Your task to perform on an android device: Open calendar and show me the third week of next month Image 0: 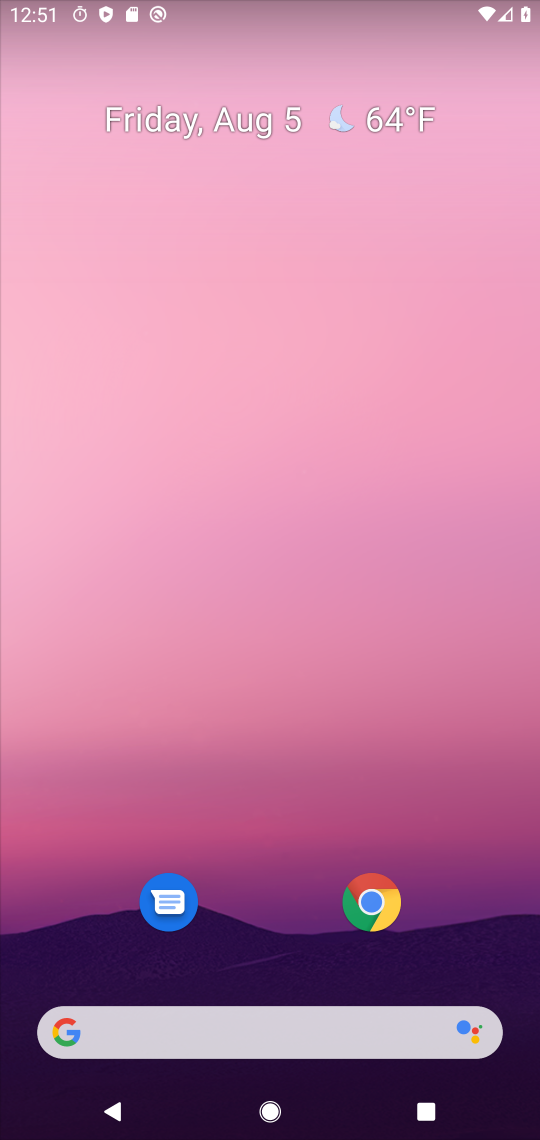
Step 0: press home button
Your task to perform on an android device: Open calendar and show me the third week of next month Image 1: 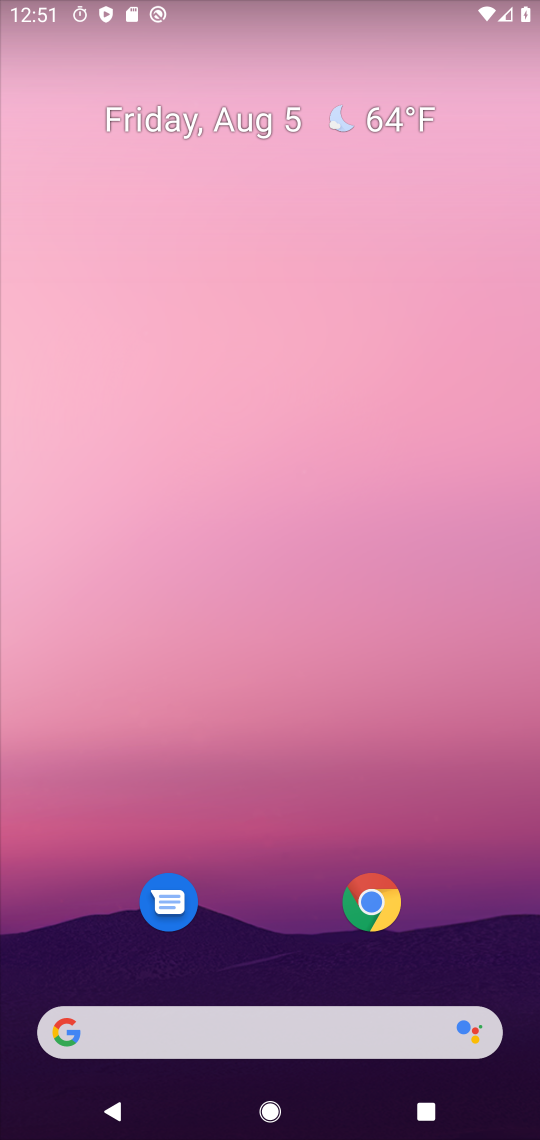
Step 1: drag from (268, 1015) to (6, 317)
Your task to perform on an android device: Open calendar and show me the third week of next month Image 2: 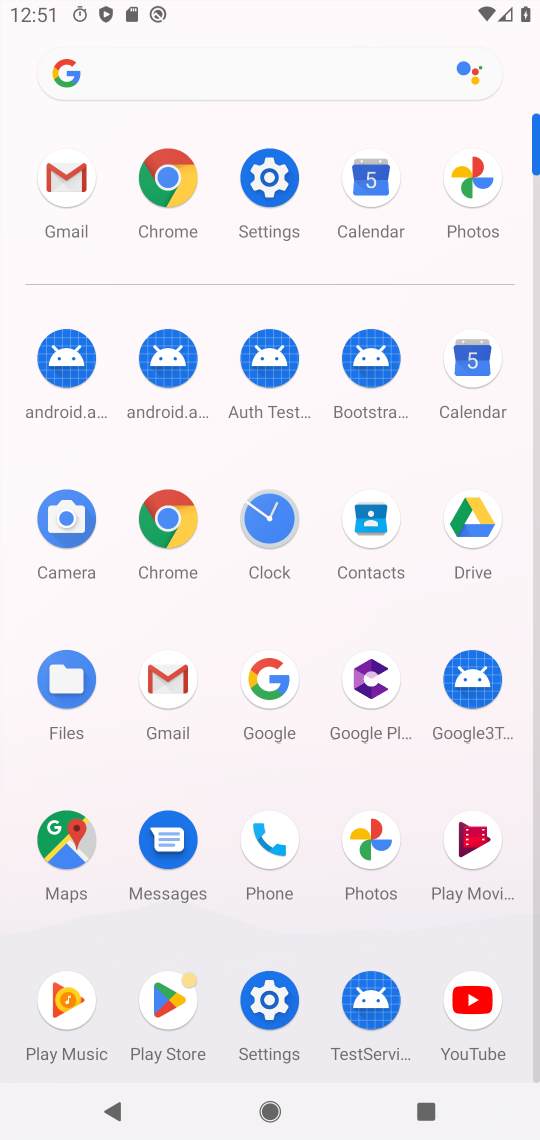
Step 2: click (452, 379)
Your task to perform on an android device: Open calendar and show me the third week of next month Image 3: 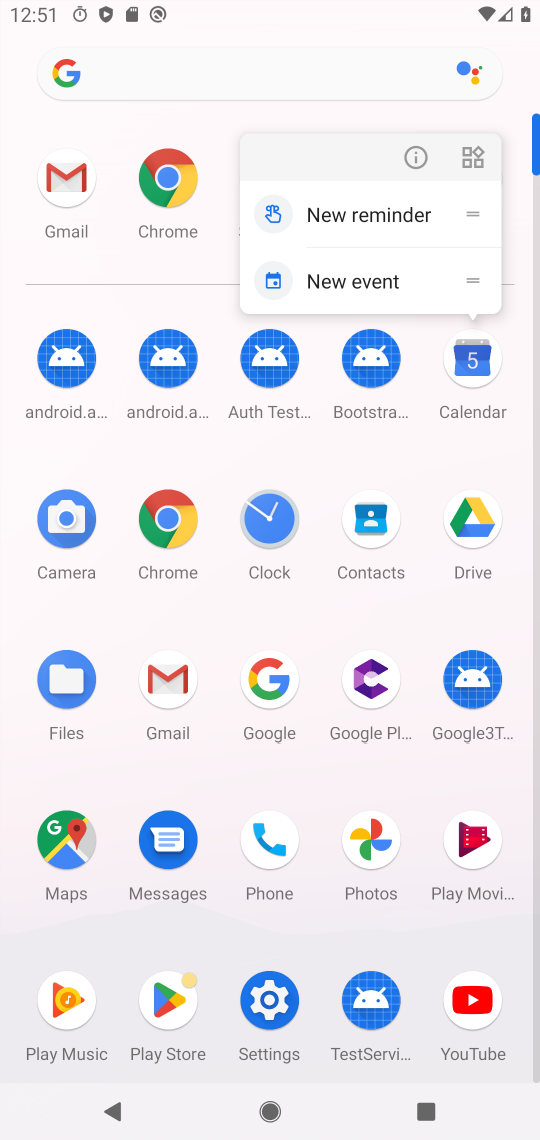
Step 3: click (475, 377)
Your task to perform on an android device: Open calendar and show me the third week of next month Image 4: 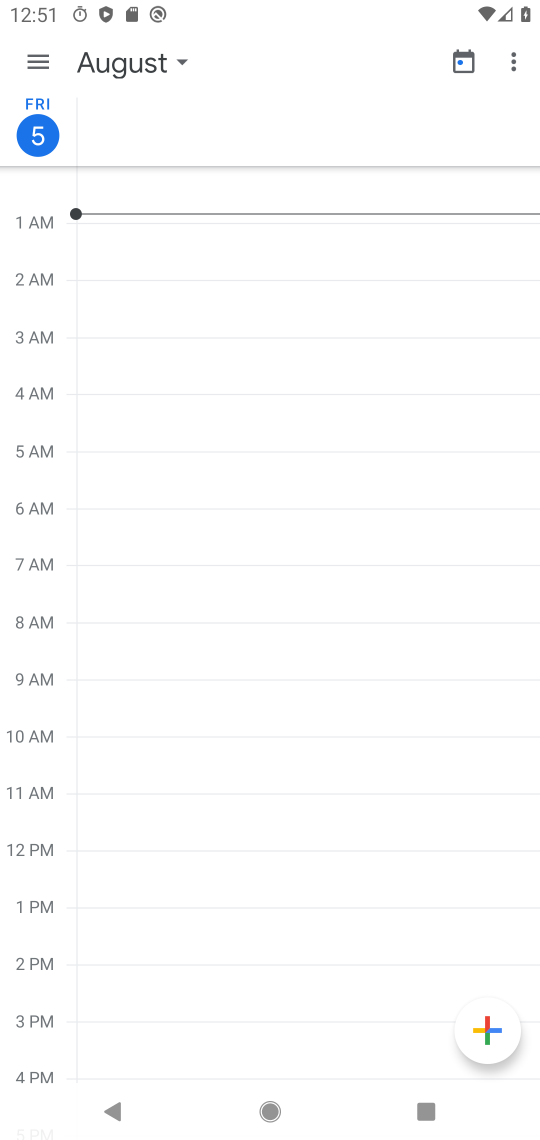
Step 4: click (31, 63)
Your task to perform on an android device: Open calendar and show me the third week of next month Image 5: 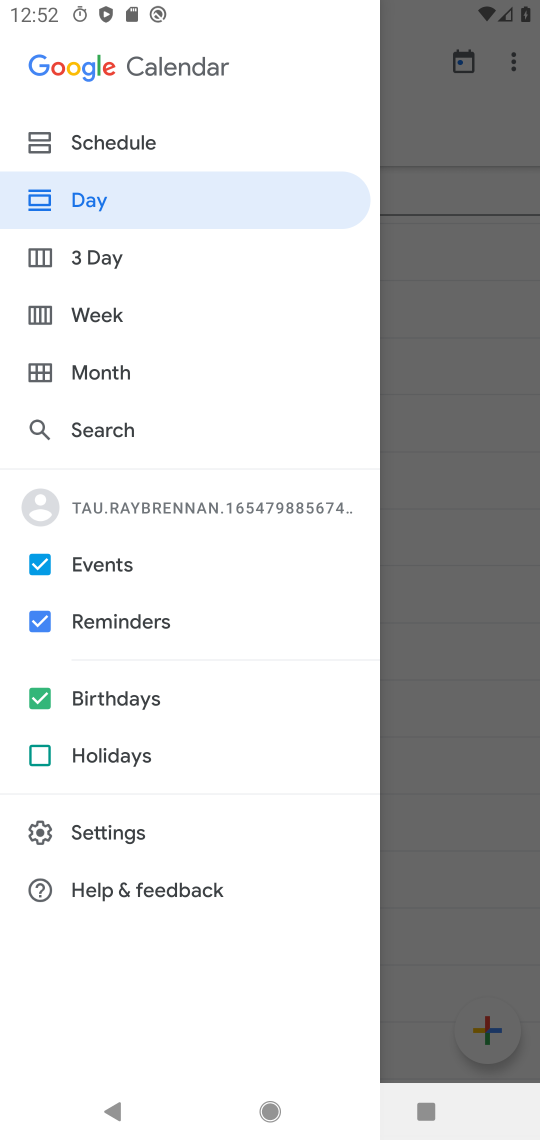
Step 5: click (120, 365)
Your task to perform on an android device: Open calendar and show me the third week of next month Image 6: 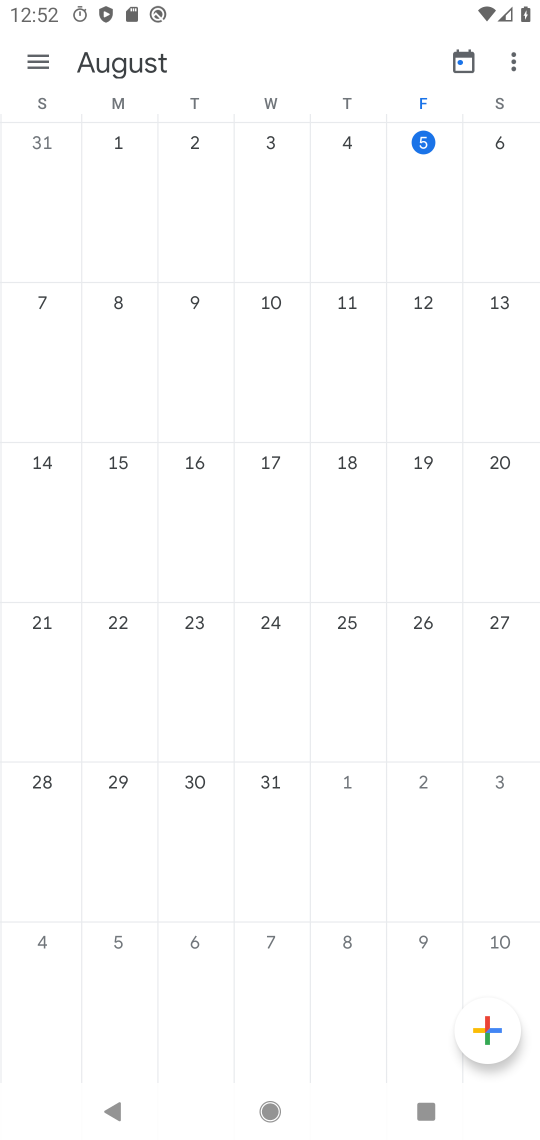
Step 6: drag from (528, 782) to (4, 635)
Your task to perform on an android device: Open calendar and show me the third week of next month Image 7: 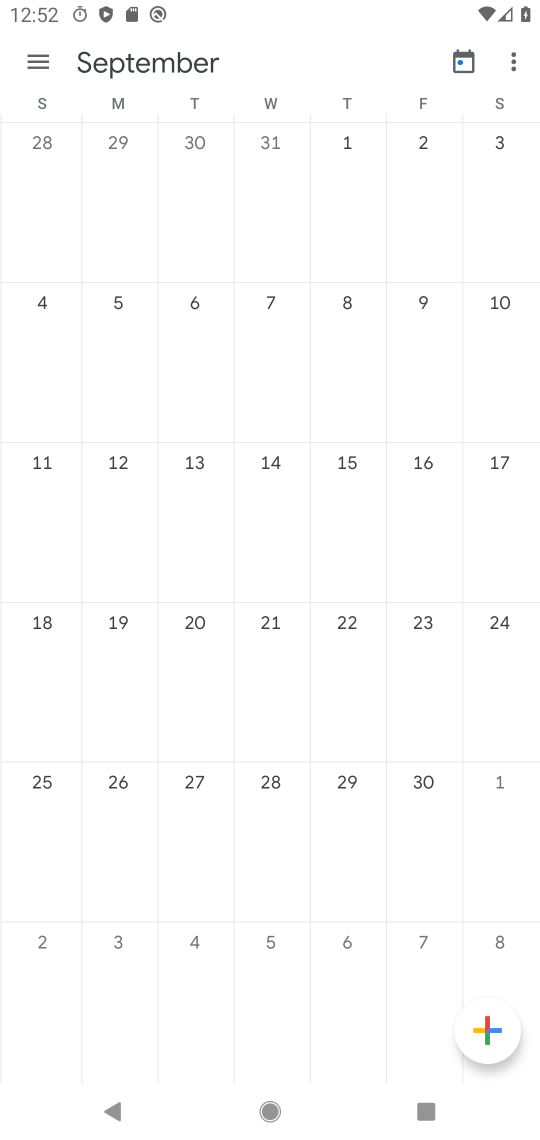
Step 7: click (130, 648)
Your task to perform on an android device: Open calendar and show me the third week of next month Image 8: 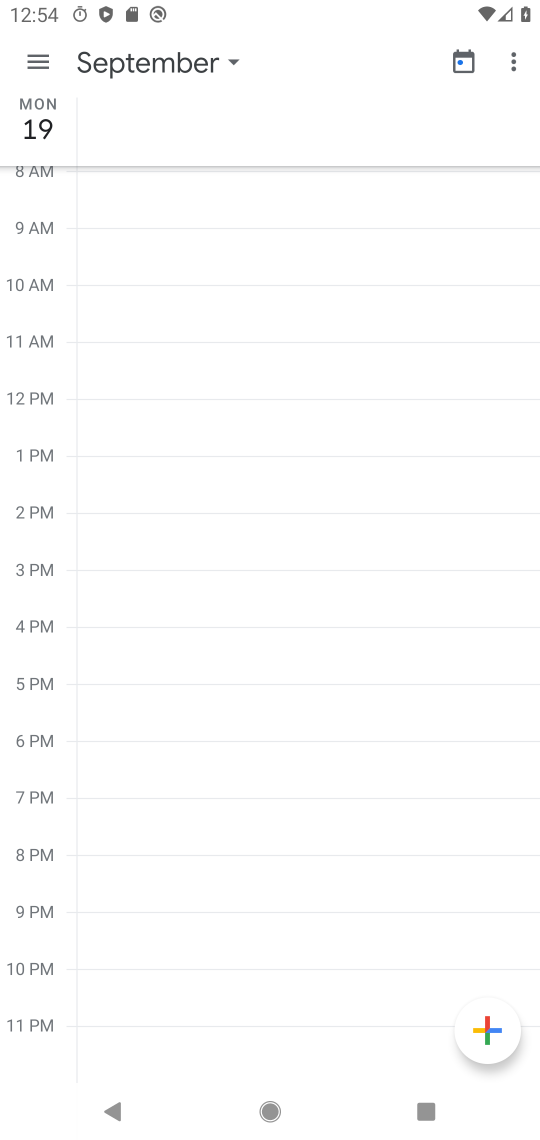
Step 8: task complete